Your task to perform on an android device: stop showing notifications on the lock screen Image 0: 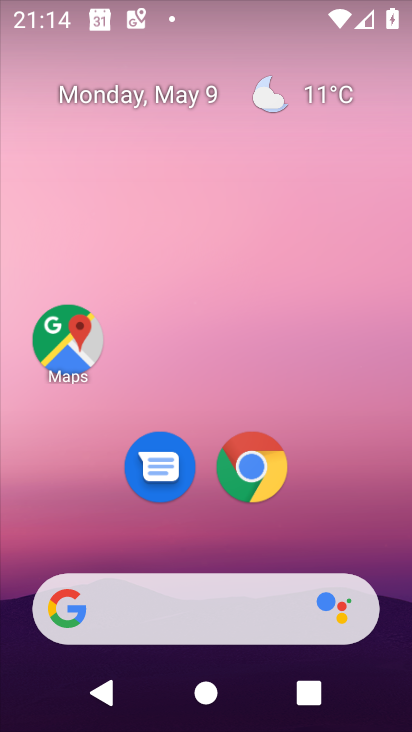
Step 0: drag from (287, 514) to (266, 192)
Your task to perform on an android device: stop showing notifications on the lock screen Image 1: 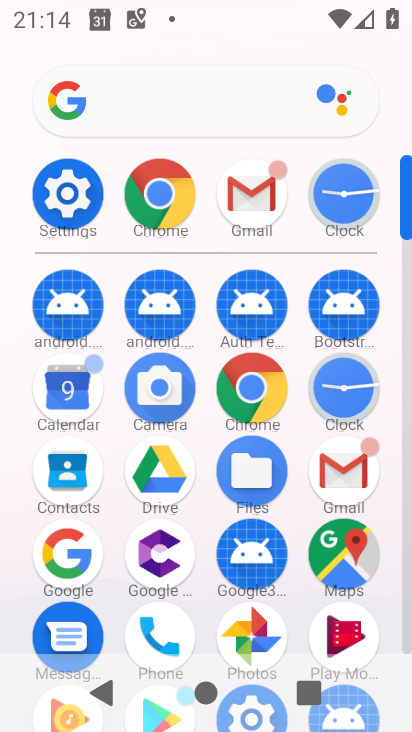
Step 1: click (63, 200)
Your task to perform on an android device: stop showing notifications on the lock screen Image 2: 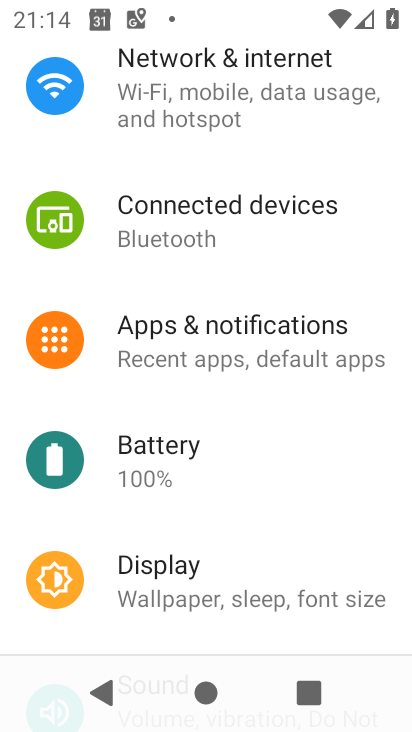
Step 2: click (184, 362)
Your task to perform on an android device: stop showing notifications on the lock screen Image 3: 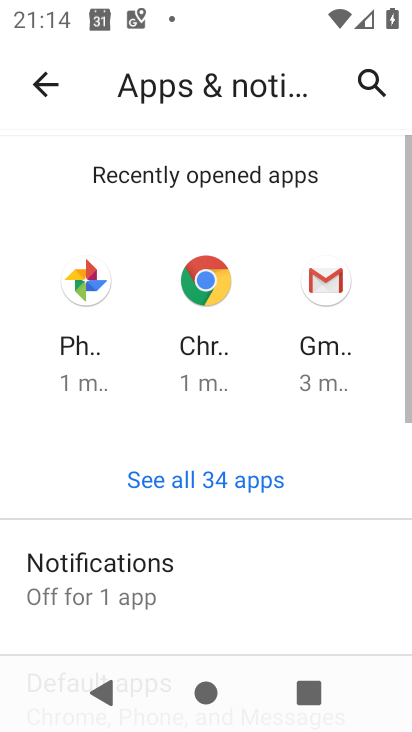
Step 3: drag from (177, 595) to (195, 484)
Your task to perform on an android device: stop showing notifications on the lock screen Image 4: 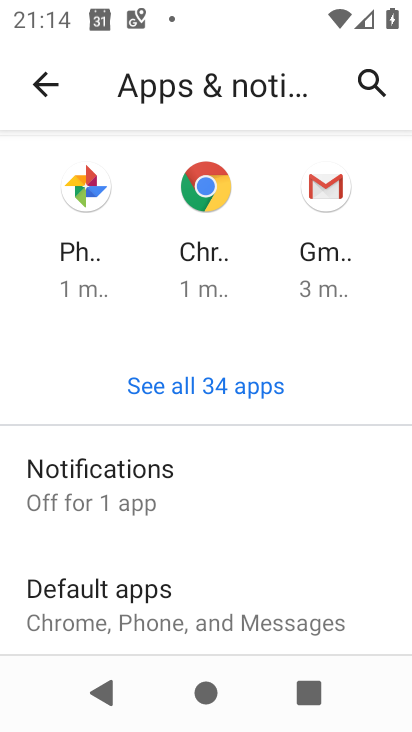
Step 4: click (182, 486)
Your task to perform on an android device: stop showing notifications on the lock screen Image 5: 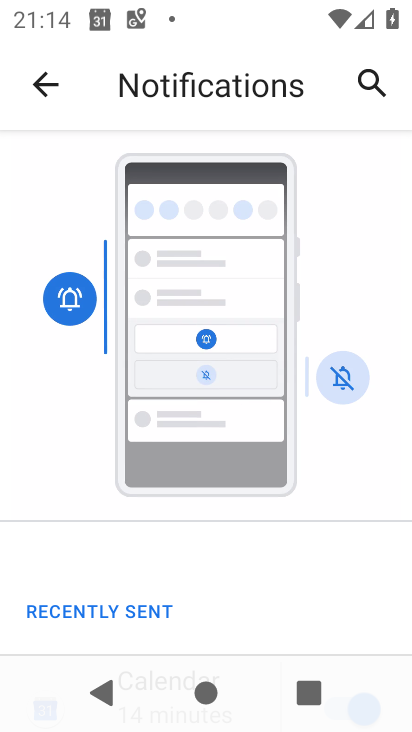
Step 5: drag from (274, 576) to (329, 168)
Your task to perform on an android device: stop showing notifications on the lock screen Image 6: 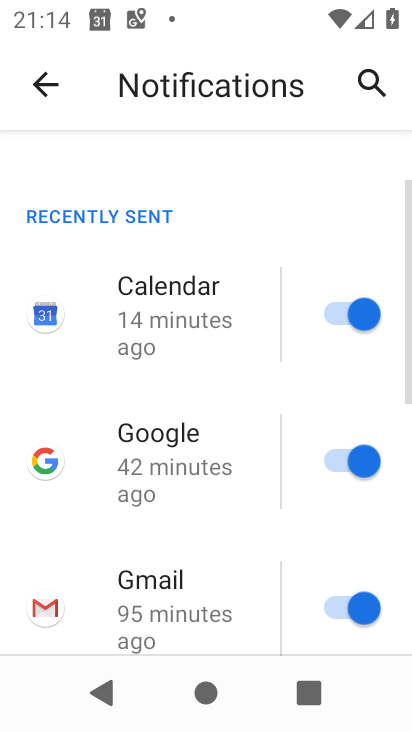
Step 6: drag from (236, 529) to (306, 111)
Your task to perform on an android device: stop showing notifications on the lock screen Image 7: 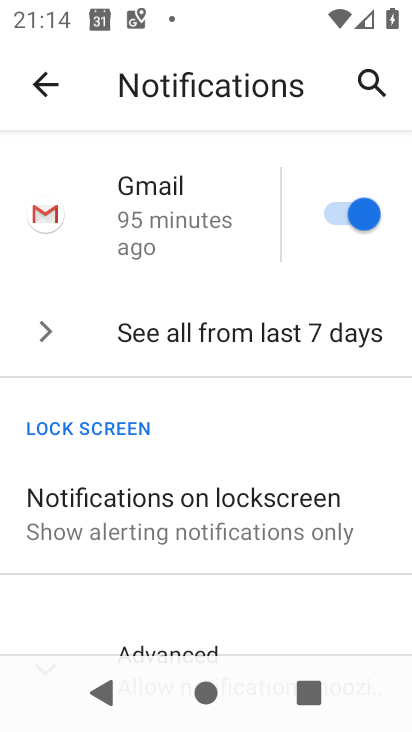
Step 7: click (183, 528)
Your task to perform on an android device: stop showing notifications on the lock screen Image 8: 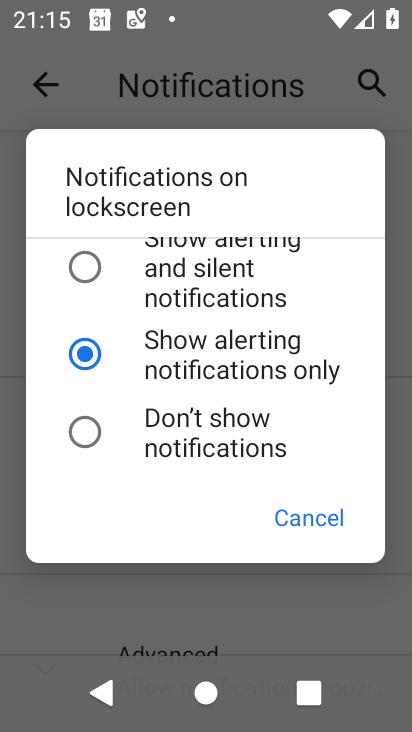
Step 8: click (162, 434)
Your task to perform on an android device: stop showing notifications on the lock screen Image 9: 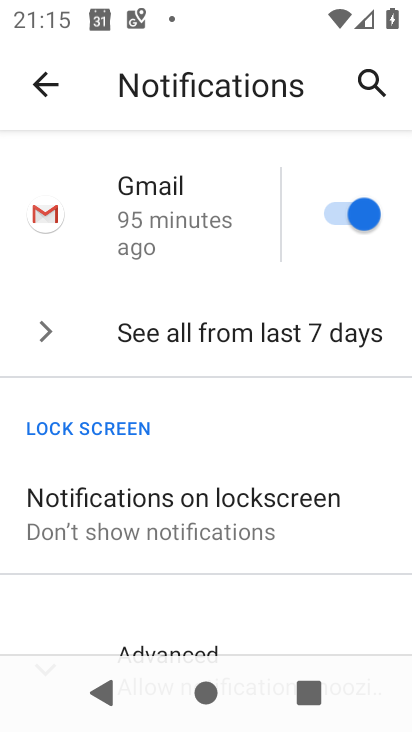
Step 9: task complete